Your task to perform on an android device: What is the news today? Image 0: 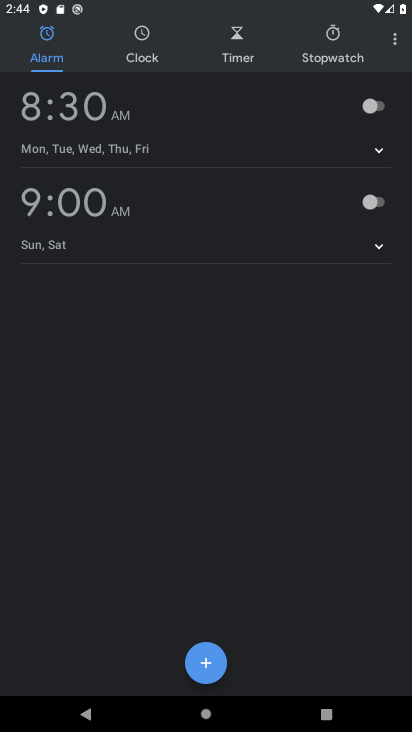
Step 0: press home button
Your task to perform on an android device: What is the news today? Image 1: 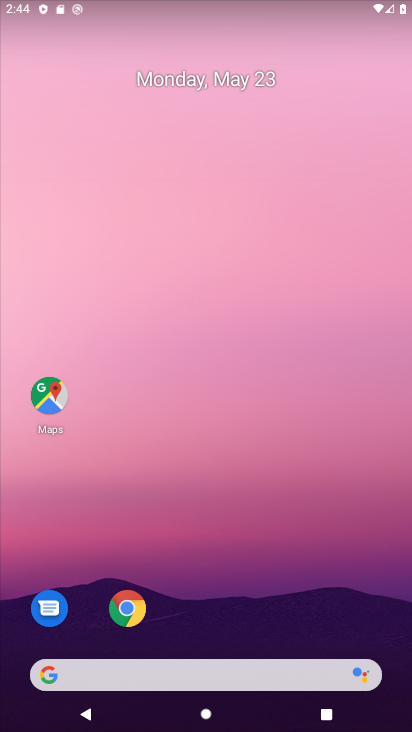
Step 1: drag from (240, 607) to (242, 241)
Your task to perform on an android device: What is the news today? Image 2: 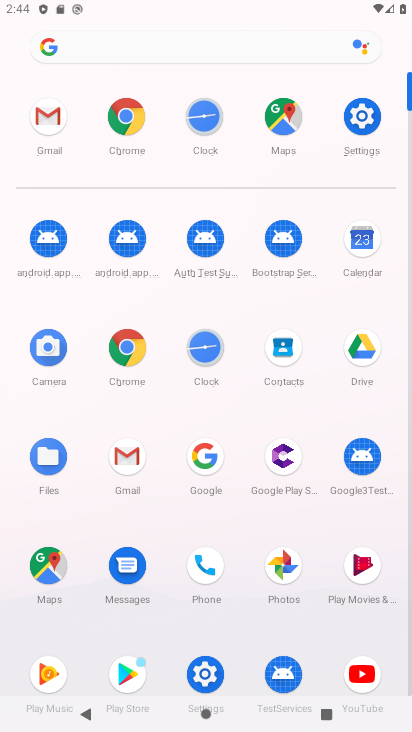
Step 2: click (132, 120)
Your task to perform on an android device: What is the news today? Image 3: 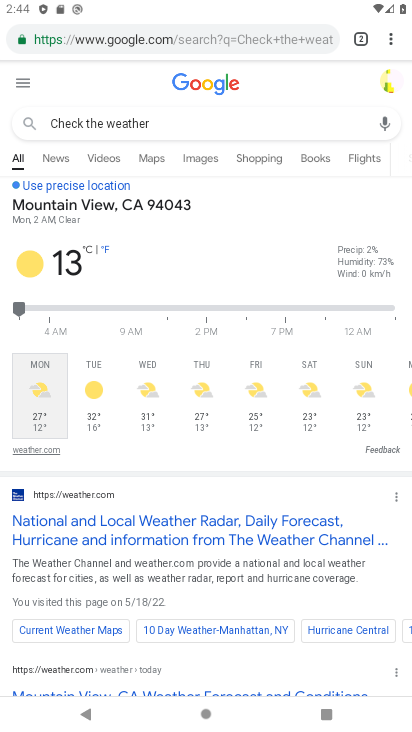
Step 3: click (385, 28)
Your task to perform on an android device: What is the news today? Image 4: 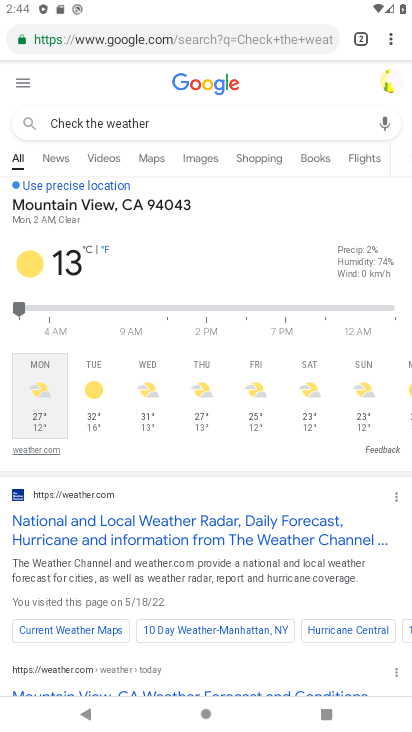
Step 4: click (379, 40)
Your task to perform on an android device: What is the news today? Image 5: 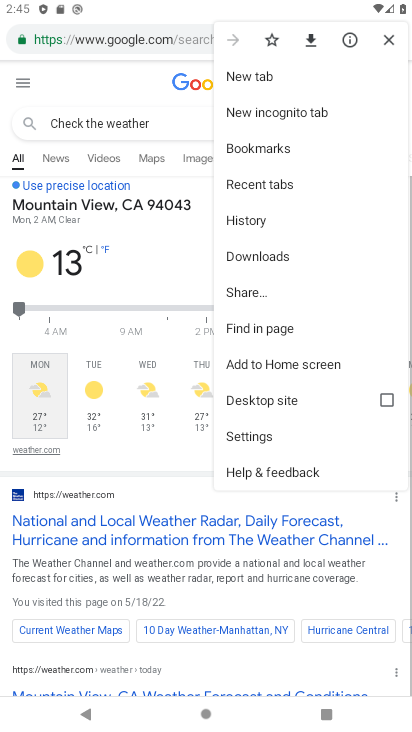
Step 5: click (268, 68)
Your task to perform on an android device: What is the news today? Image 6: 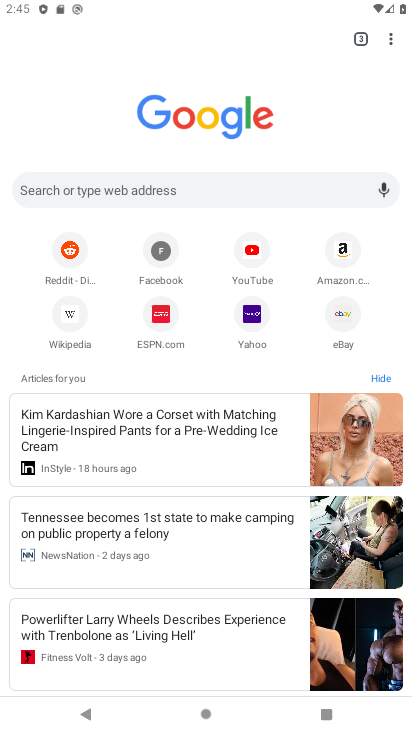
Step 6: click (174, 192)
Your task to perform on an android device: What is the news today? Image 7: 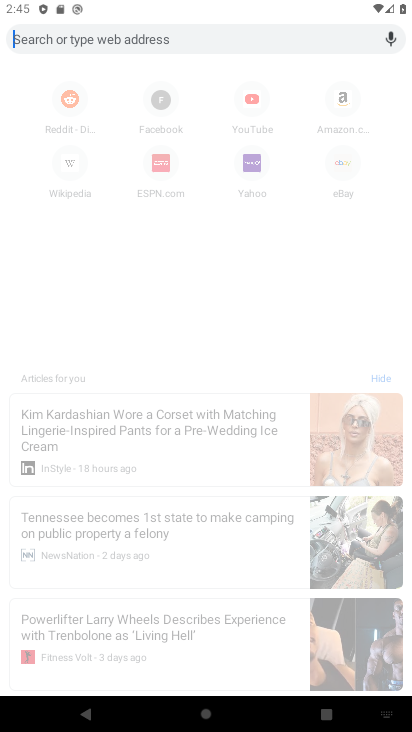
Step 7: type "What is the news today?"
Your task to perform on an android device: What is the news today? Image 8: 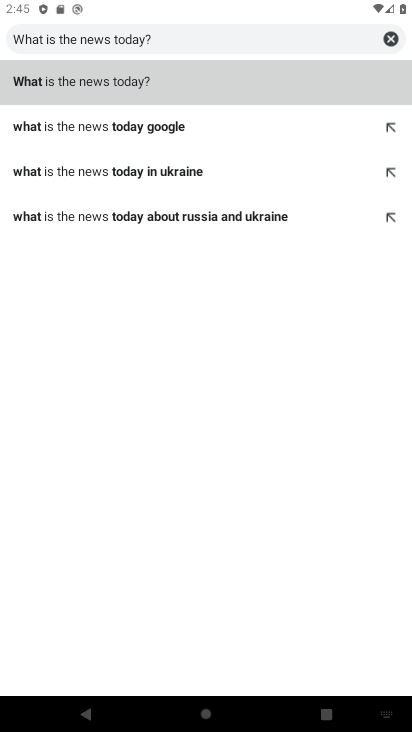
Step 8: click (156, 126)
Your task to perform on an android device: What is the news today? Image 9: 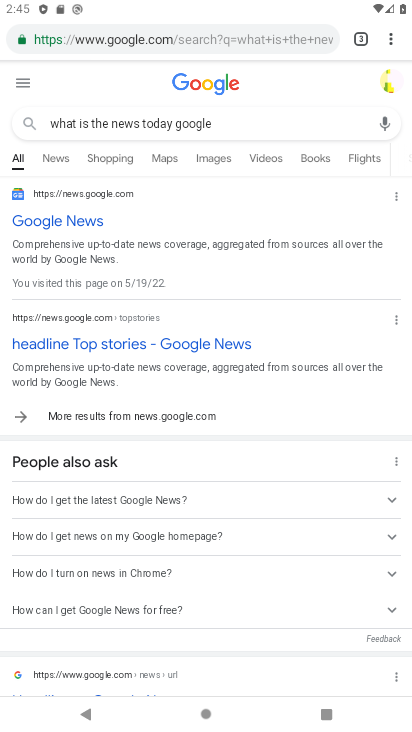
Step 9: task complete